Your task to perform on an android device: Is it going to rain this weekend? Image 0: 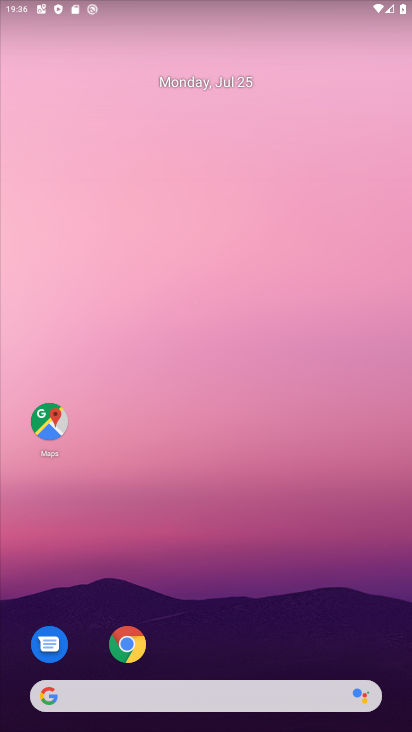
Step 0: click (191, 693)
Your task to perform on an android device: Is it going to rain this weekend? Image 1: 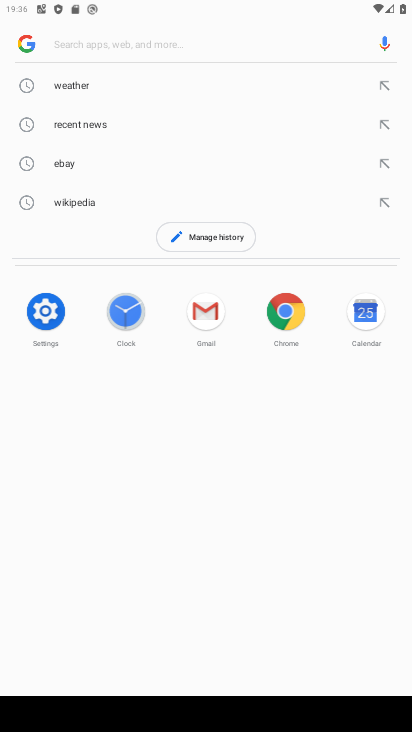
Step 1: click (90, 88)
Your task to perform on an android device: Is it going to rain this weekend? Image 2: 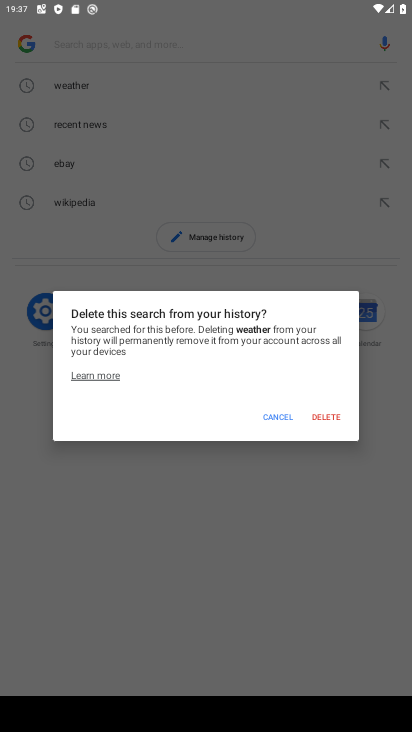
Step 2: click (271, 415)
Your task to perform on an android device: Is it going to rain this weekend? Image 3: 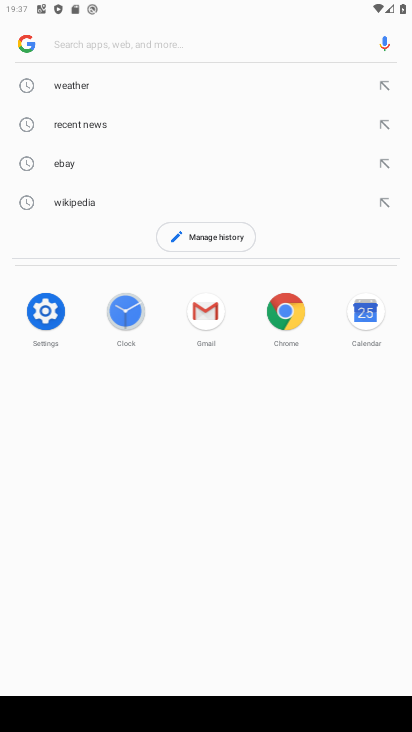
Step 3: click (88, 82)
Your task to perform on an android device: Is it going to rain this weekend? Image 4: 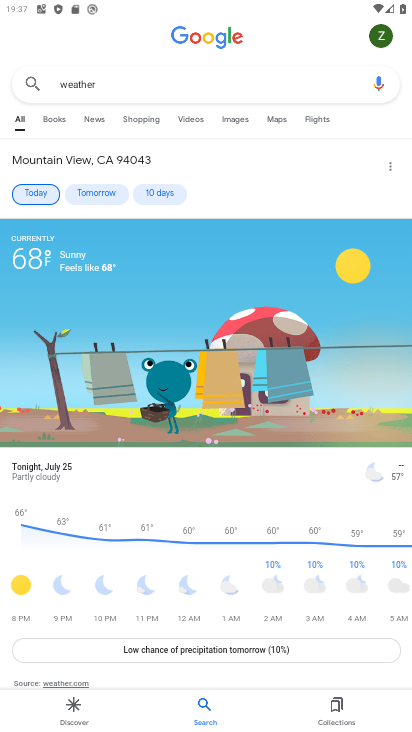
Step 4: click (159, 187)
Your task to perform on an android device: Is it going to rain this weekend? Image 5: 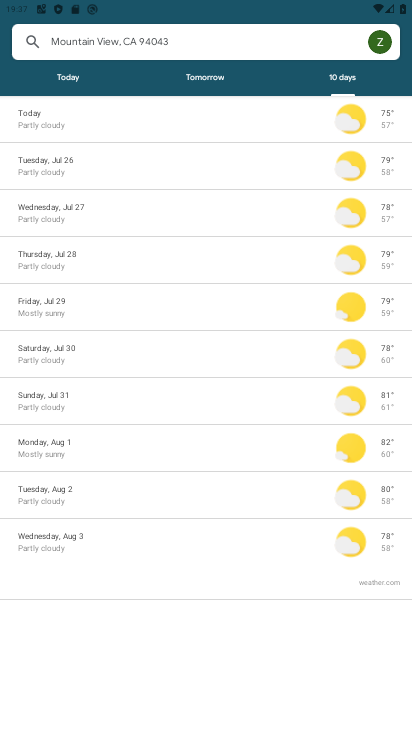
Step 5: click (86, 350)
Your task to perform on an android device: Is it going to rain this weekend? Image 6: 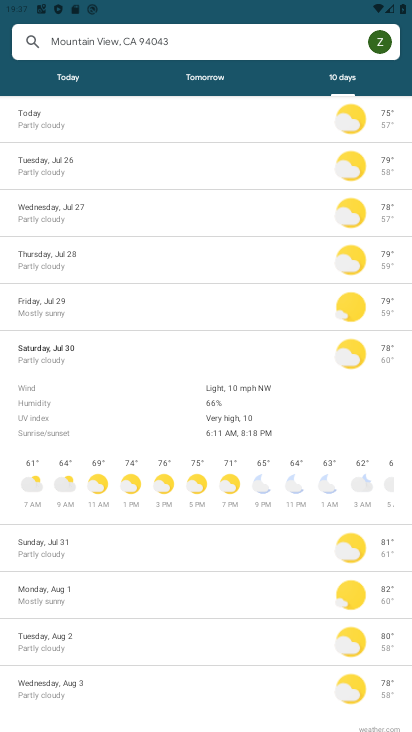
Step 6: click (79, 541)
Your task to perform on an android device: Is it going to rain this weekend? Image 7: 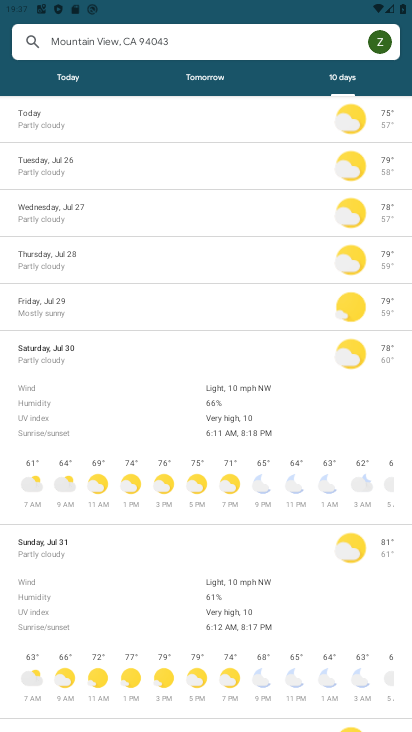
Step 7: task complete